Your task to perform on an android device: turn off airplane mode Image 0: 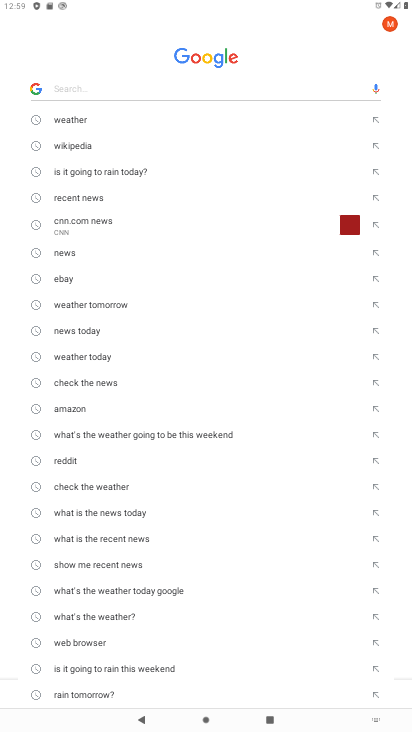
Step 0: press home button
Your task to perform on an android device: turn off airplane mode Image 1: 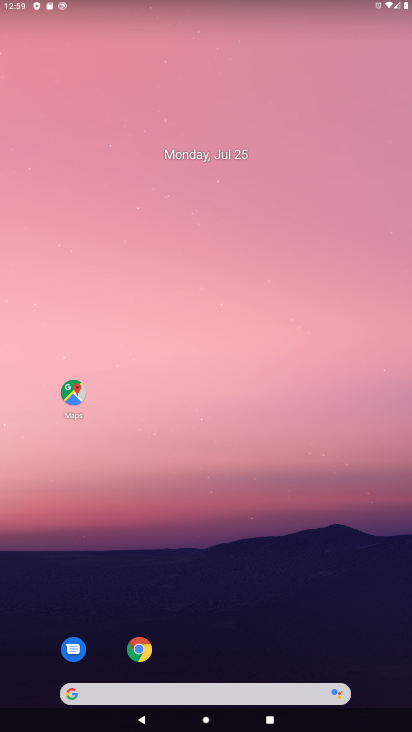
Step 1: task complete